Your task to perform on an android device: open app "Lyft - Rideshare, Bikes, Scooters & Transit" Image 0: 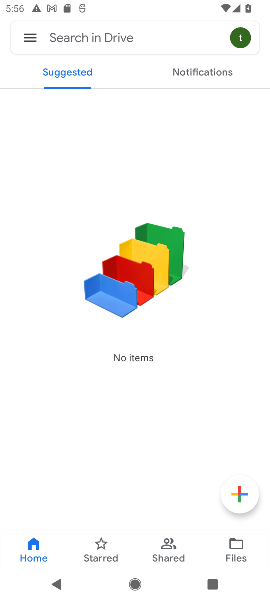
Step 0: press home button
Your task to perform on an android device: open app "Lyft - Rideshare, Bikes, Scooters & Transit" Image 1: 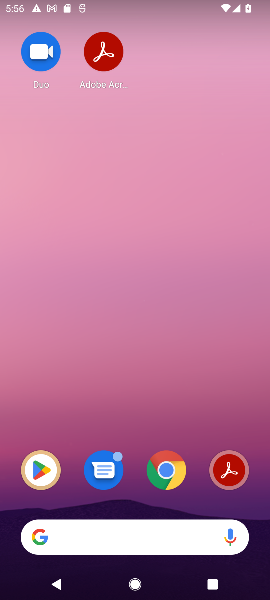
Step 1: drag from (227, 426) to (202, 6)
Your task to perform on an android device: open app "Lyft - Rideshare, Bikes, Scooters & Transit" Image 2: 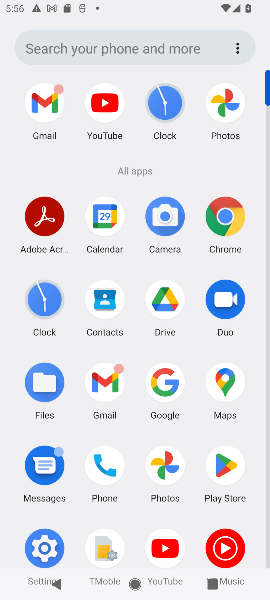
Step 2: click (221, 460)
Your task to perform on an android device: open app "Lyft - Rideshare, Bikes, Scooters & Transit" Image 3: 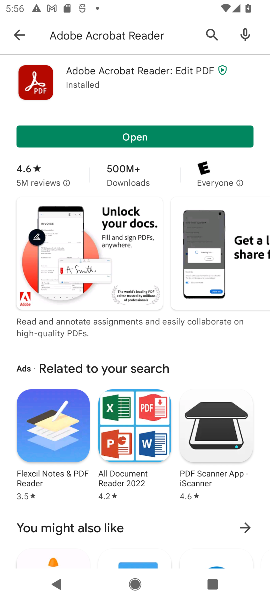
Step 3: click (142, 28)
Your task to perform on an android device: open app "Lyft - Rideshare, Bikes, Scooters & Transit" Image 4: 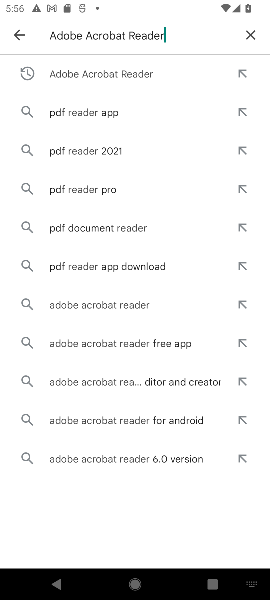
Step 4: click (252, 39)
Your task to perform on an android device: open app "Lyft - Rideshare, Bikes, Scooters & Transit" Image 5: 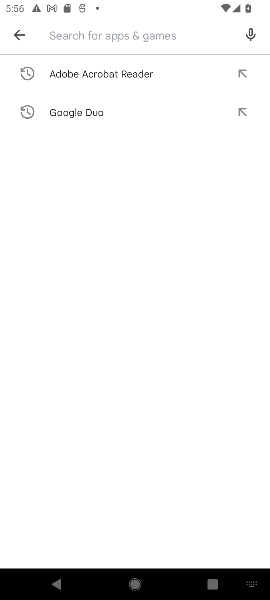
Step 5: type "Lyft"
Your task to perform on an android device: open app "Lyft - Rideshare, Bikes, Scooters & Transit" Image 6: 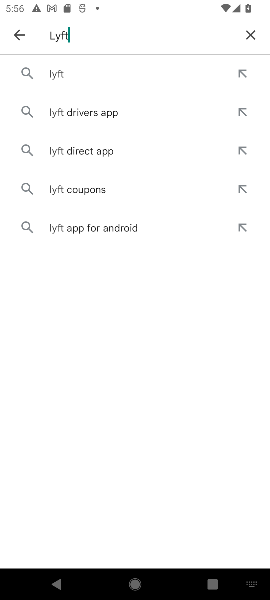
Step 6: press enter
Your task to perform on an android device: open app "Lyft - Rideshare, Bikes, Scooters & Transit" Image 7: 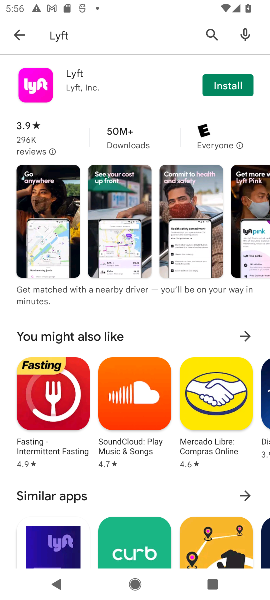
Step 7: task complete